Your task to perform on an android device: Open internet settings Image 0: 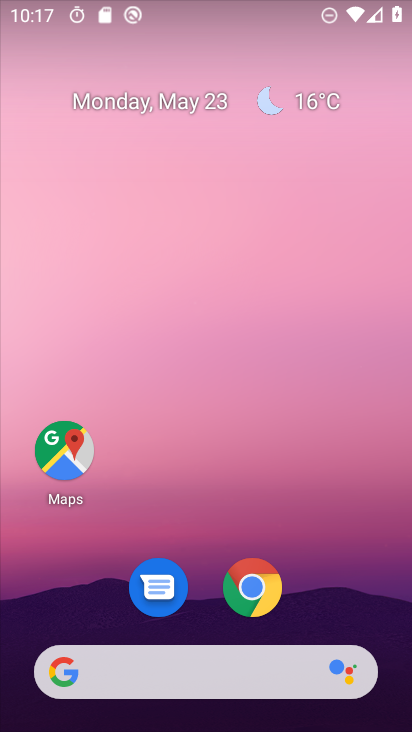
Step 0: drag from (252, 567) to (242, 76)
Your task to perform on an android device: Open internet settings Image 1: 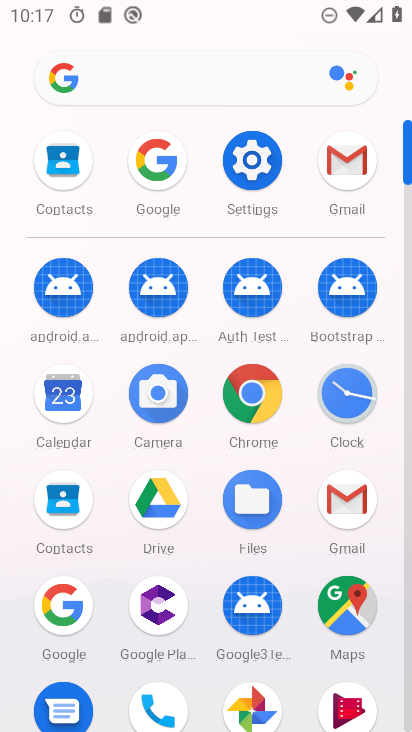
Step 1: click (252, 156)
Your task to perform on an android device: Open internet settings Image 2: 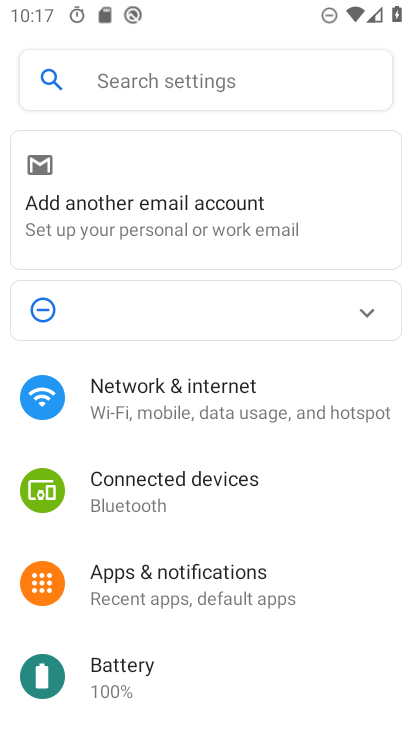
Step 2: click (175, 383)
Your task to perform on an android device: Open internet settings Image 3: 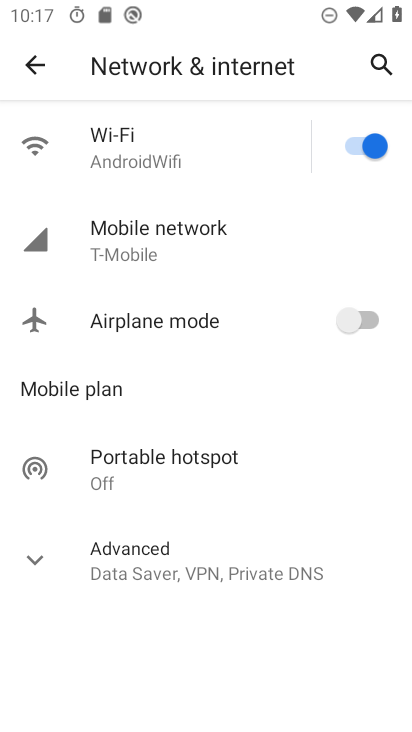
Step 3: task complete